Your task to perform on an android device: remove spam from my inbox in the gmail app Image 0: 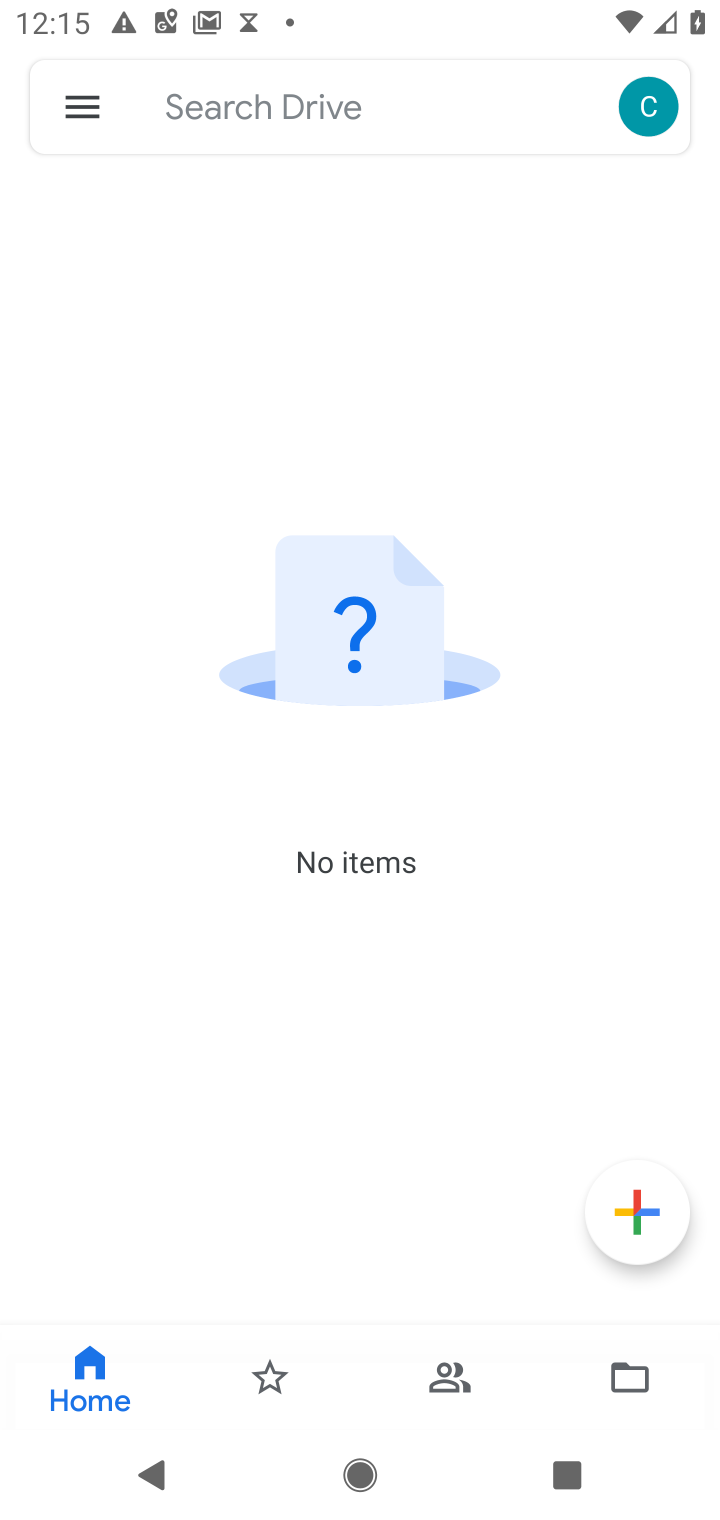
Step 0: press home button
Your task to perform on an android device: remove spam from my inbox in the gmail app Image 1: 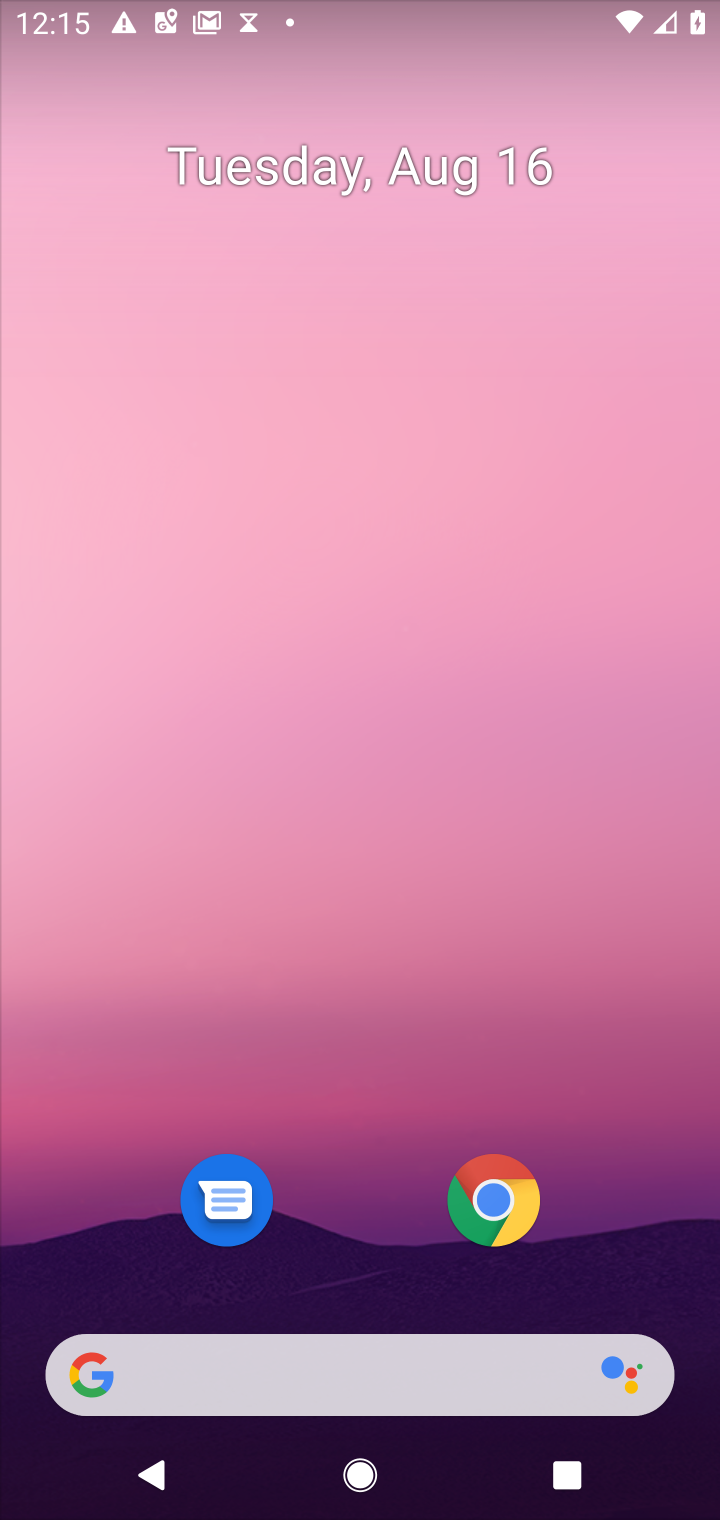
Step 1: drag from (371, 700) to (371, 247)
Your task to perform on an android device: remove spam from my inbox in the gmail app Image 2: 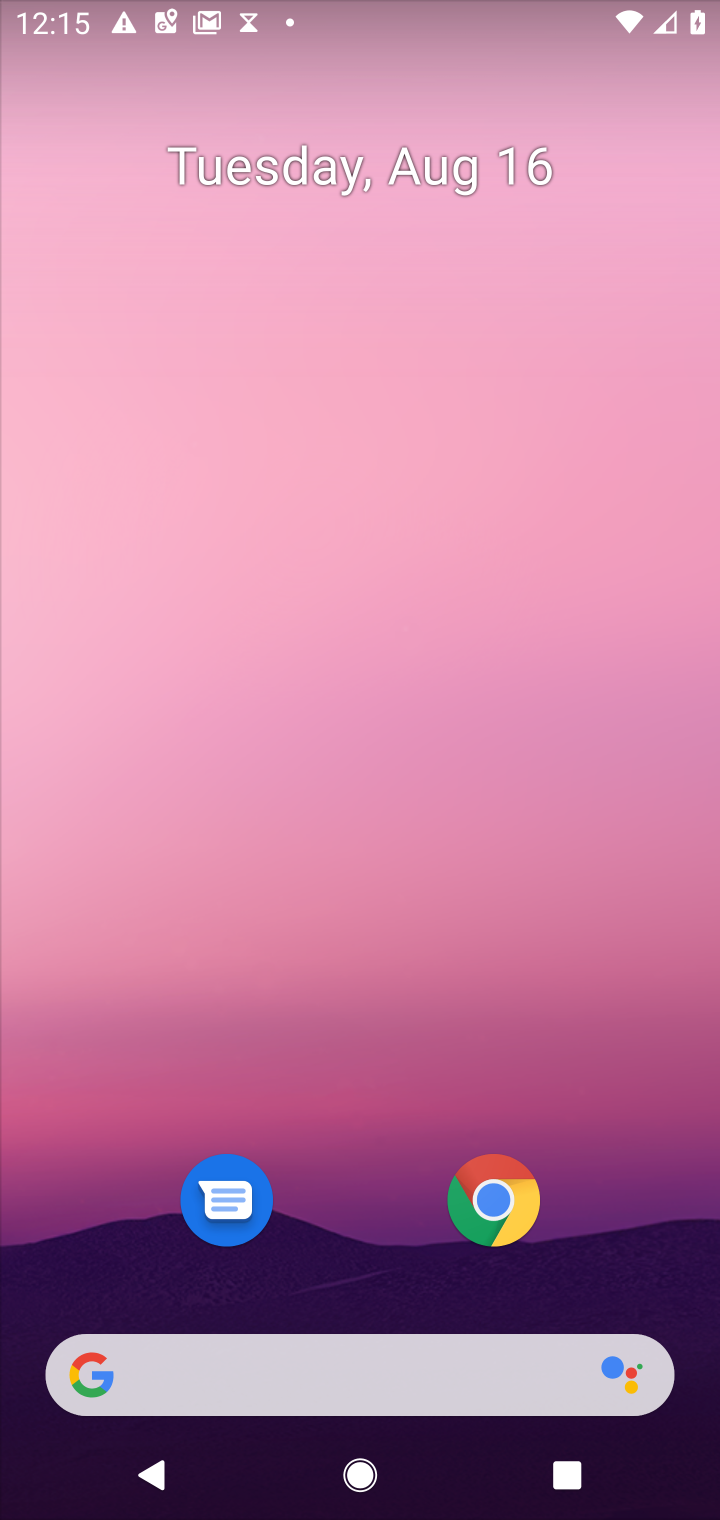
Step 2: drag from (365, 1174) to (403, 102)
Your task to perform on an android device: remove spam from my inbox in the gmail app Image 3: 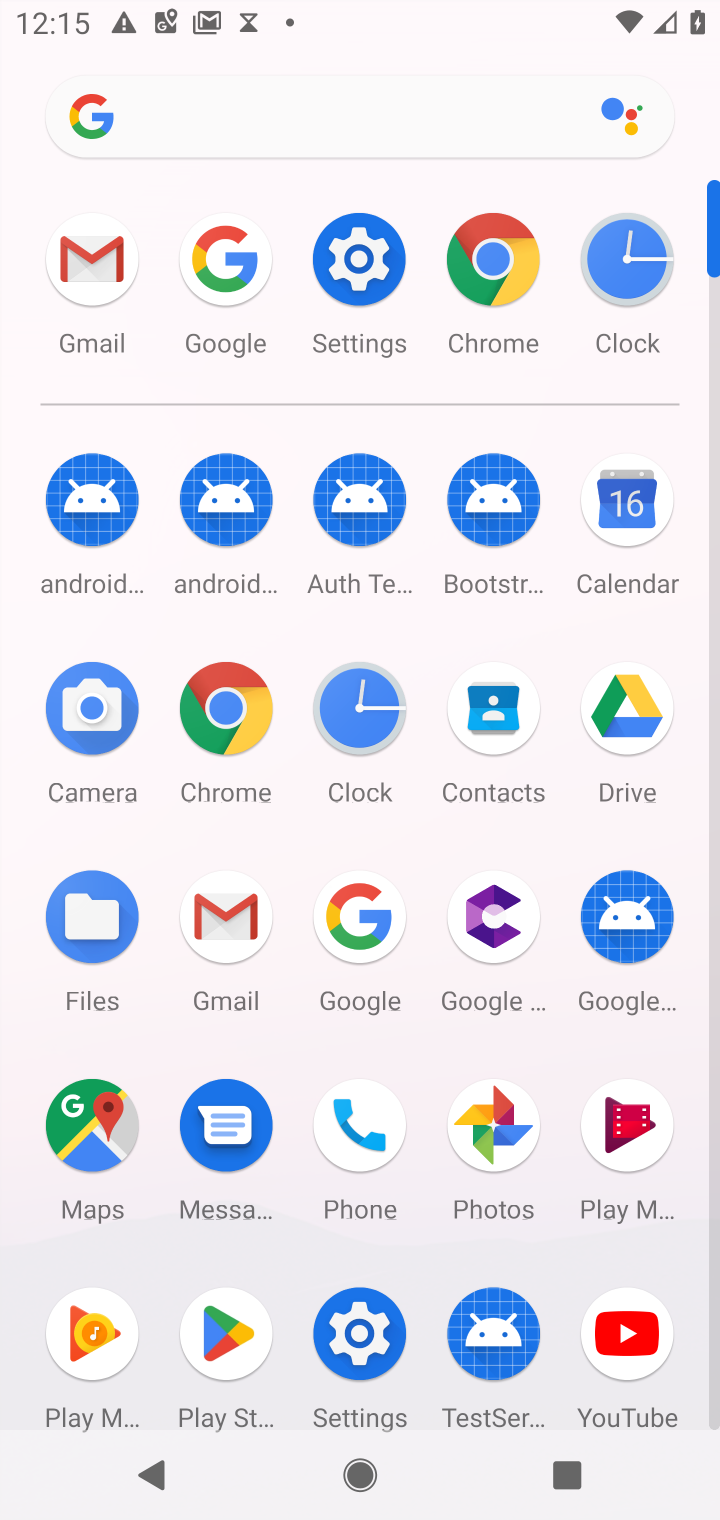
Step 3: click (198, 926)
Your task to perform on an android device: remove spam from my inbox in the gmail app Image 4: 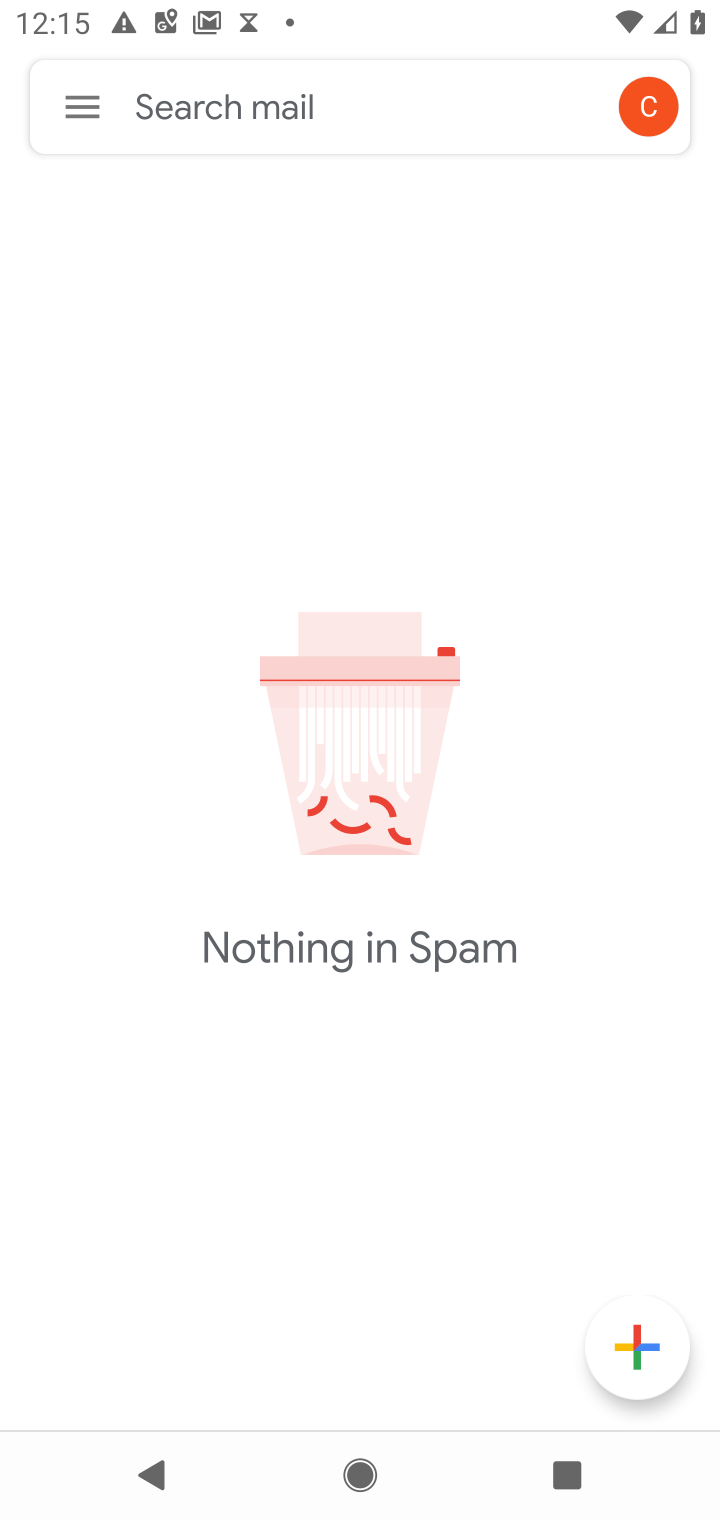
Step 4: click (76, 111)
Your task to perform on an android device: remove spam from my inbox in the gmail app Image 5: 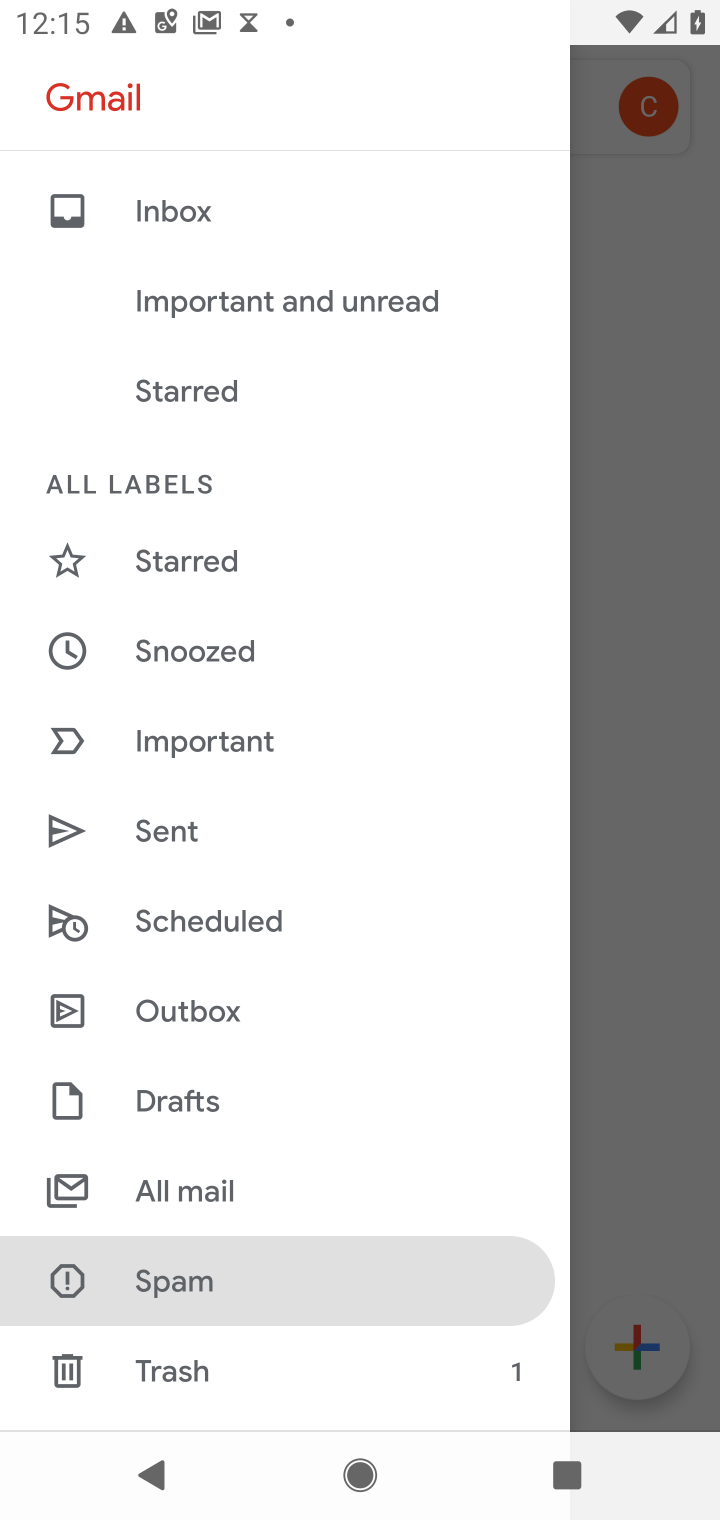
Step 5: click (220, 1209)
Your task to perform on an android device: remove spam from my inbox in the gmail app Image 6: 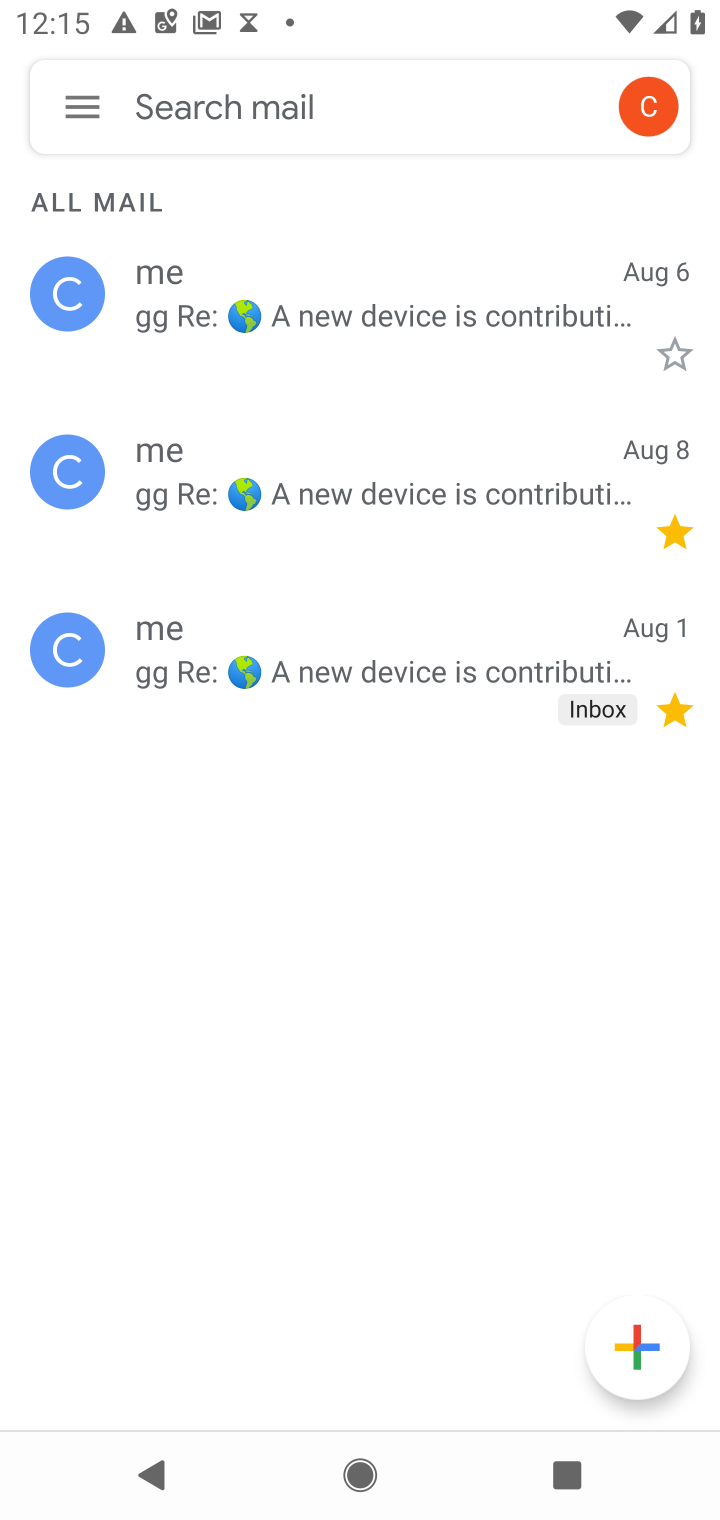
Step 6: click (56, 96)
Your task to perform on an android device: remove spam from my inbox in the gmail app Image 7: 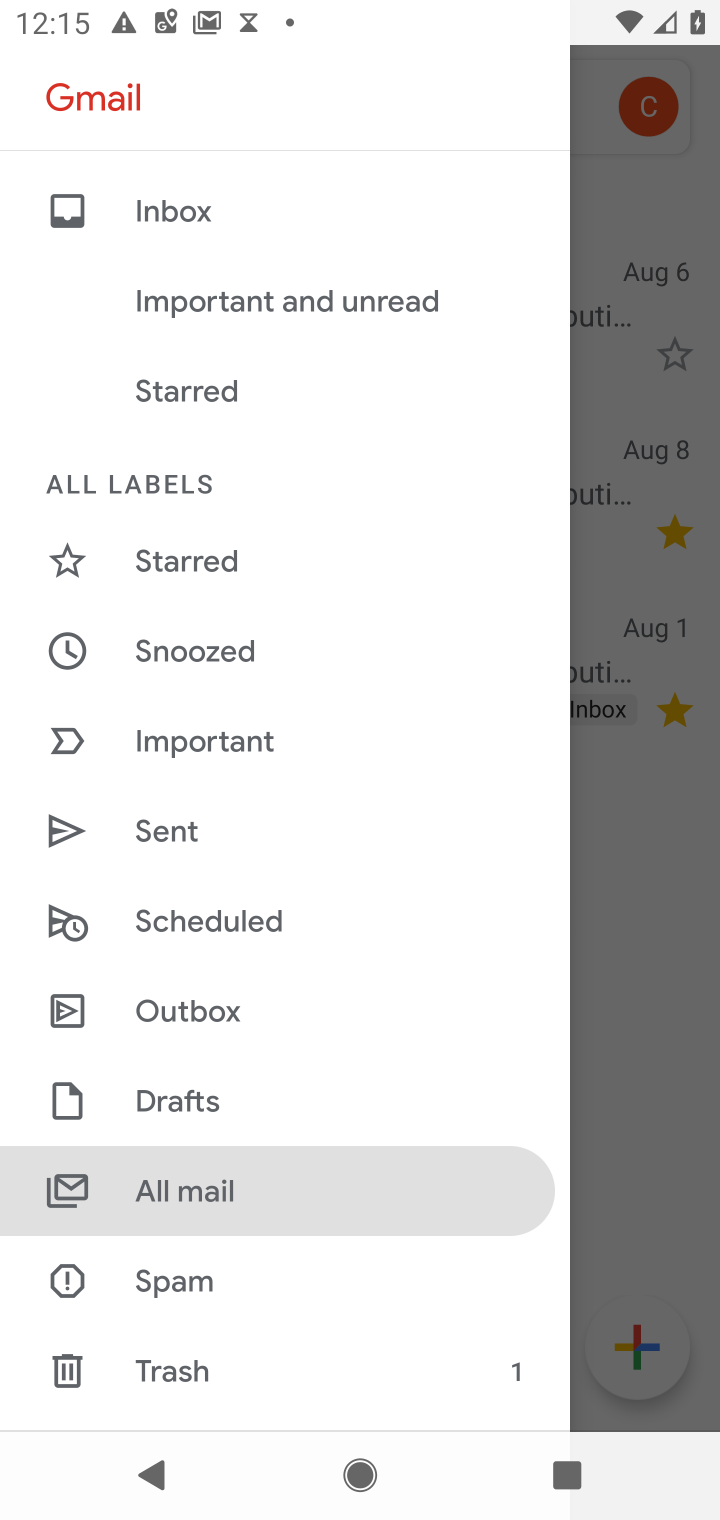
Step 7: click (176, 1276)
Your task to perform on an android device: remove spam from my inbox in the gmail app Image 8: 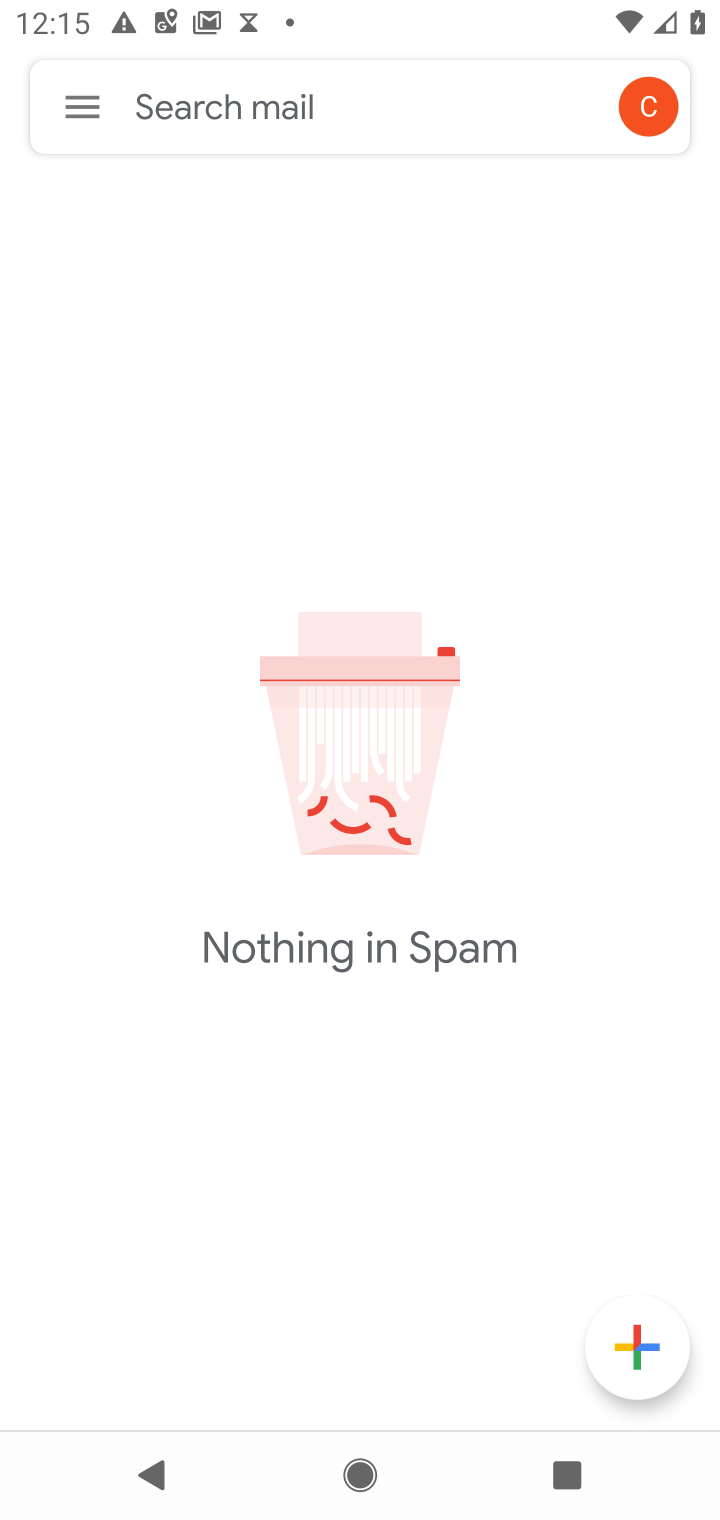
Step 8: task complete